Your task to perform on an android device: Open Youtube and go to "Your channel" Image 0: 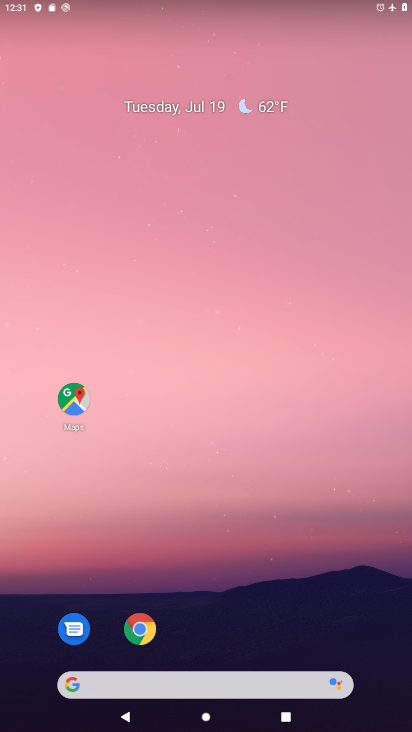
Step 0: drag from (224, 648) to (350, 107)
Your task to perform on an android device: Open Youtube and go to "Your channel" Image 1: 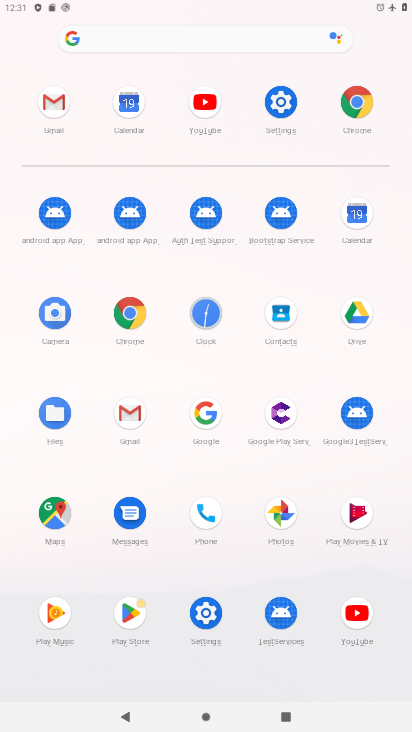
Step 1: click (357, 617)
Your task to perform on an android device: Open Youtube and go to "Your channel" Image 2: 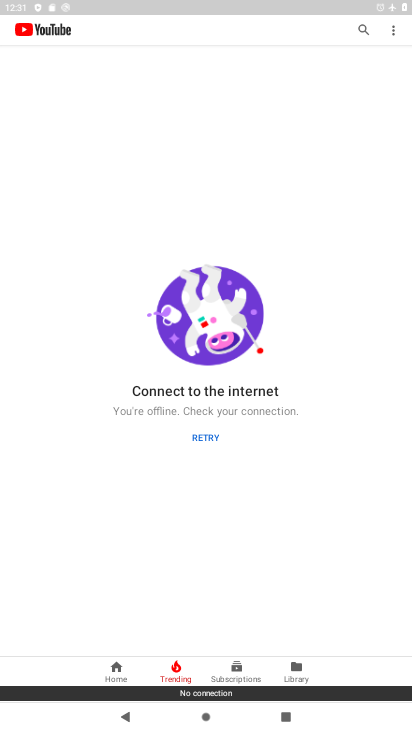
Step 2: task complete